Your task to perform on an android device: check the backup settings in the google photos Image 0: 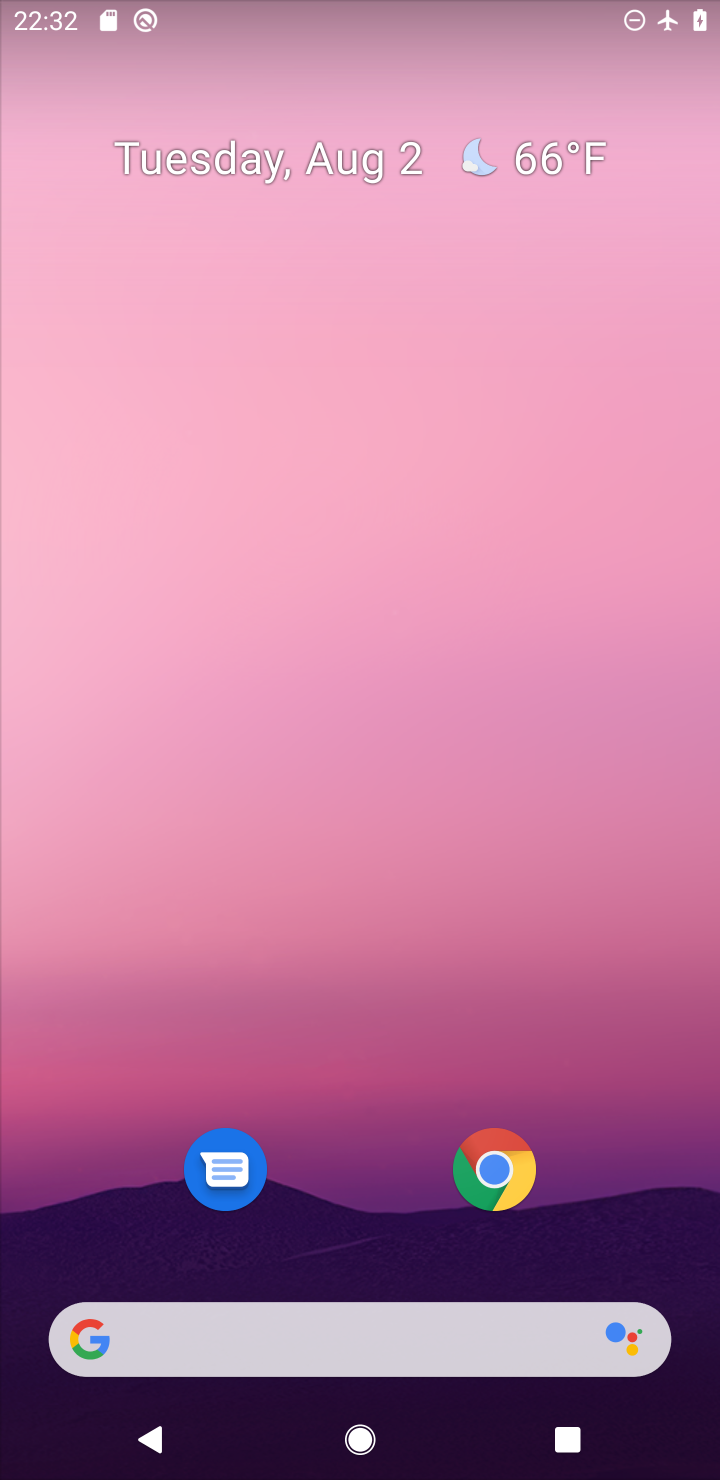
Step 0: drag from (387, 1210) to (387, 300)
Your task to perform on an android device: check the backup settings in the google photos Image 1: 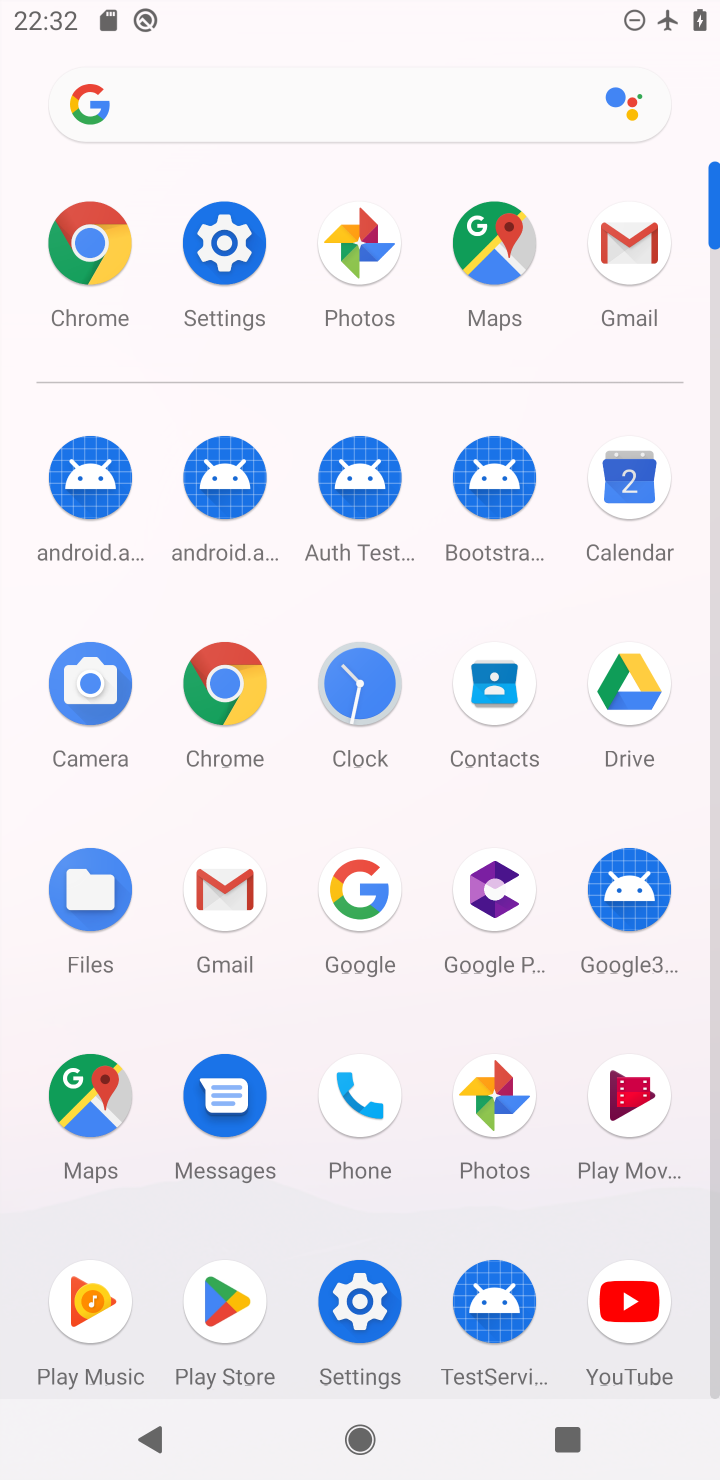
Step 1: click (486, 1093)
Your task to perform on an android device: check the backup settings in the google photos Image 2: 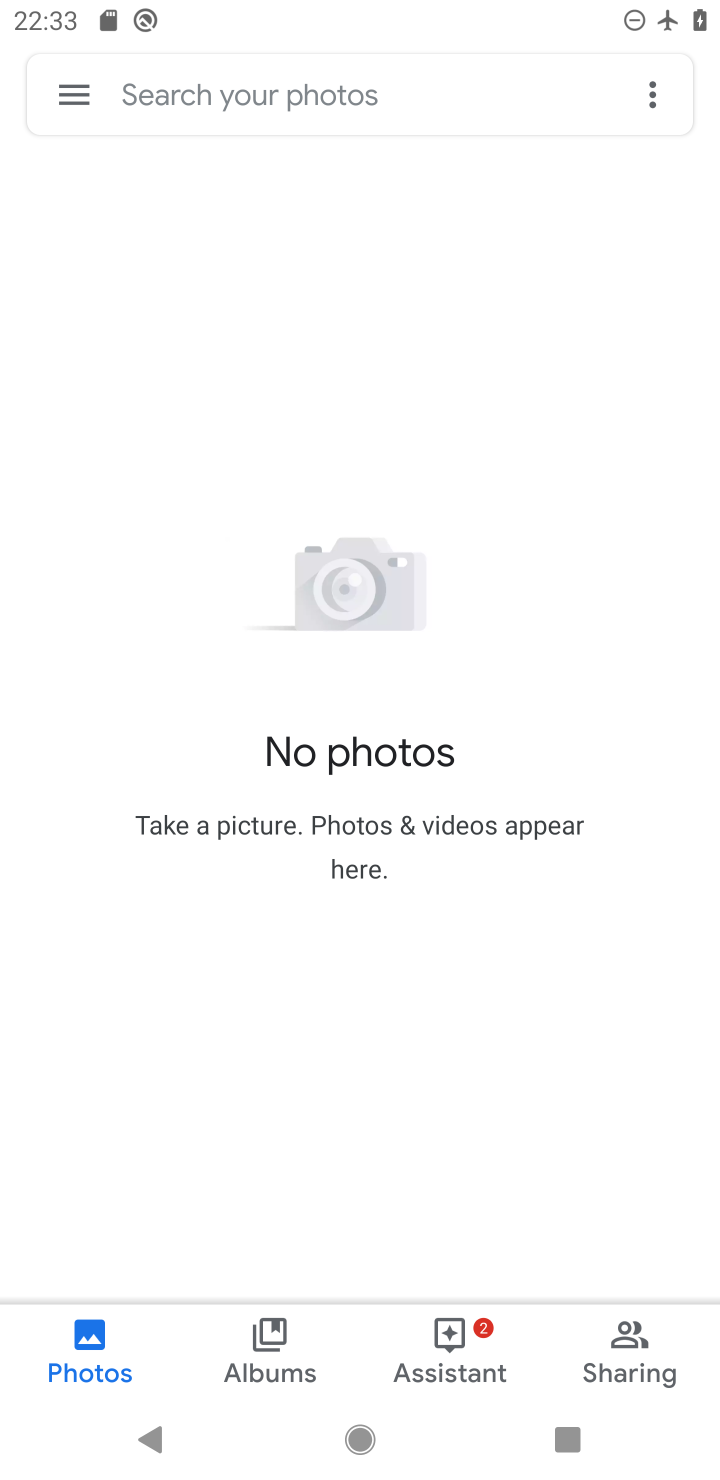
Step 2: click (70, 96)
Your task to perform on an android device: check the backup settings in the google photos Image 3: 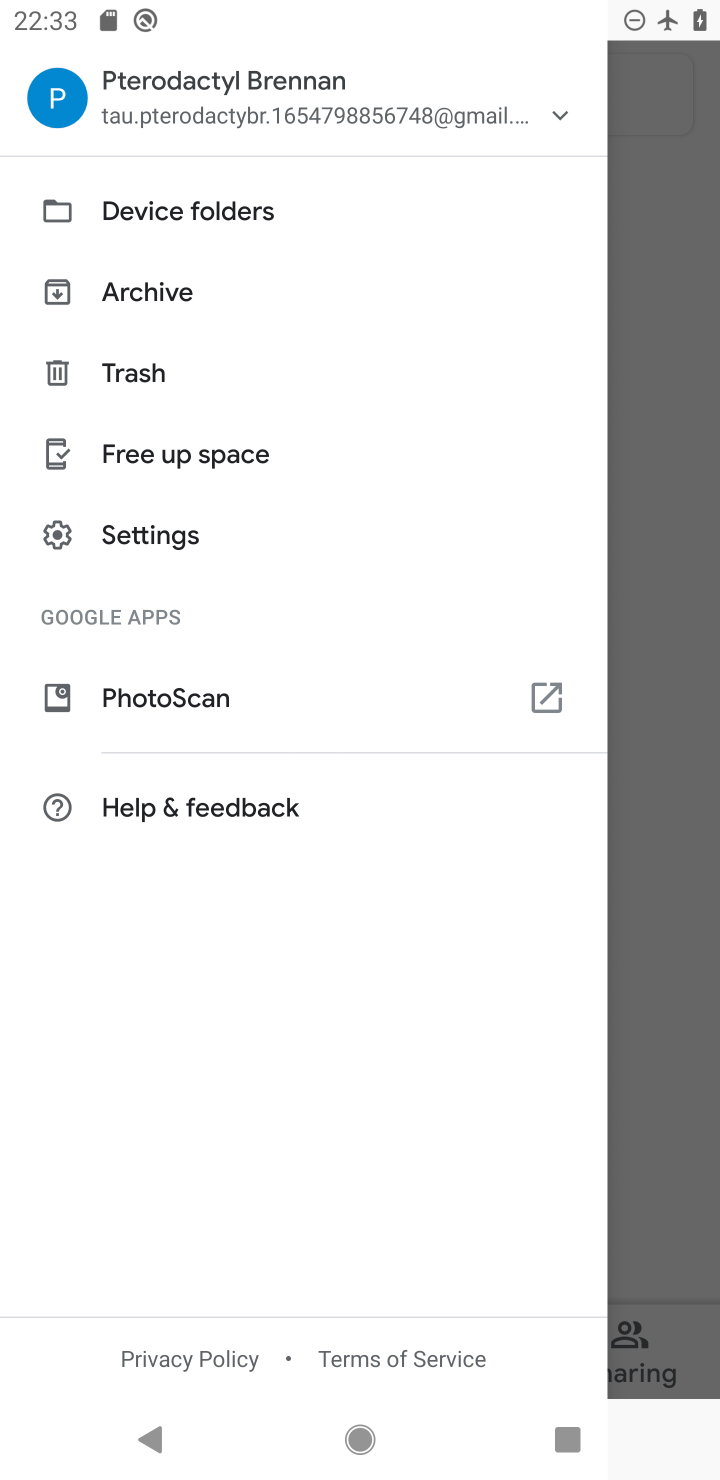
Step 3: click (184, 527)
Your task to perform on an android device: check the backup settings in the google photos Image 4: 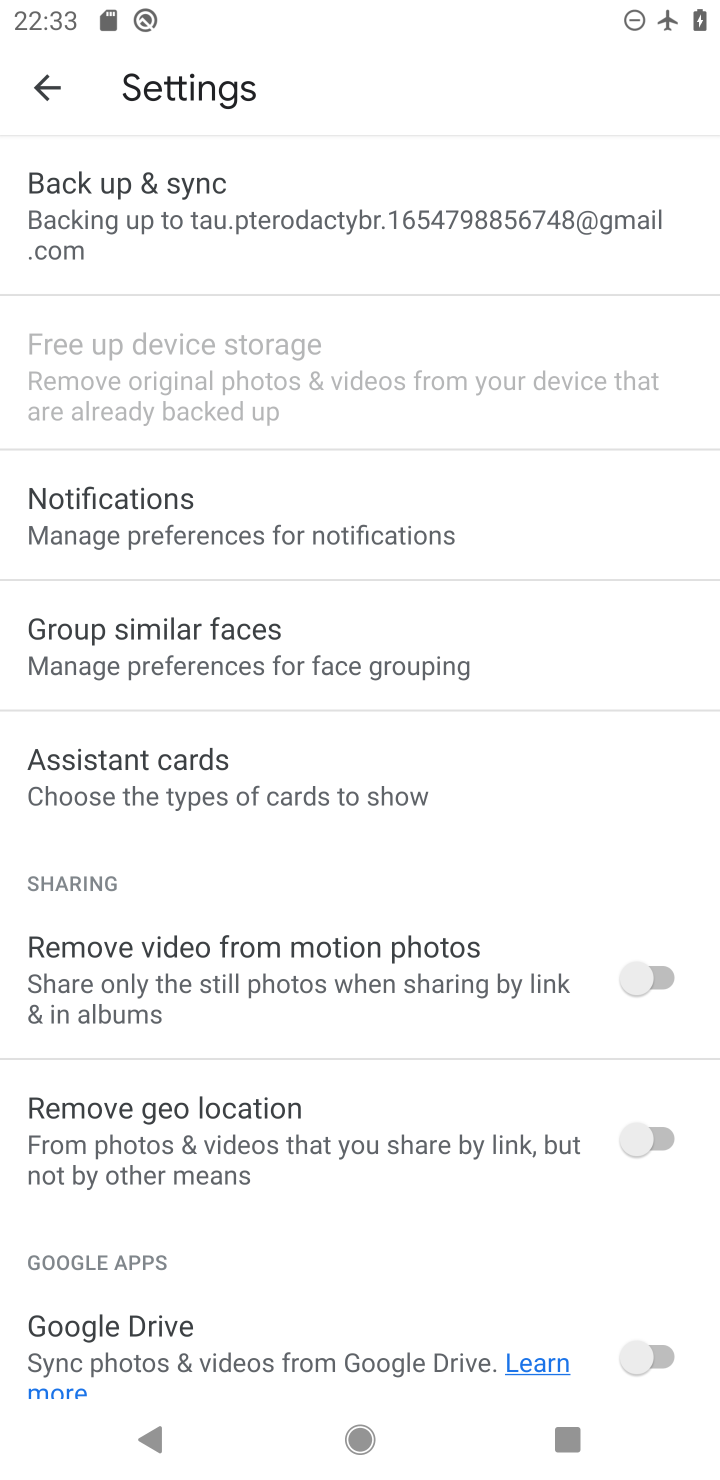
Step 4: click (149, 210)
Your task to perform on an android device: check the backup settings in the google photos Image 5: 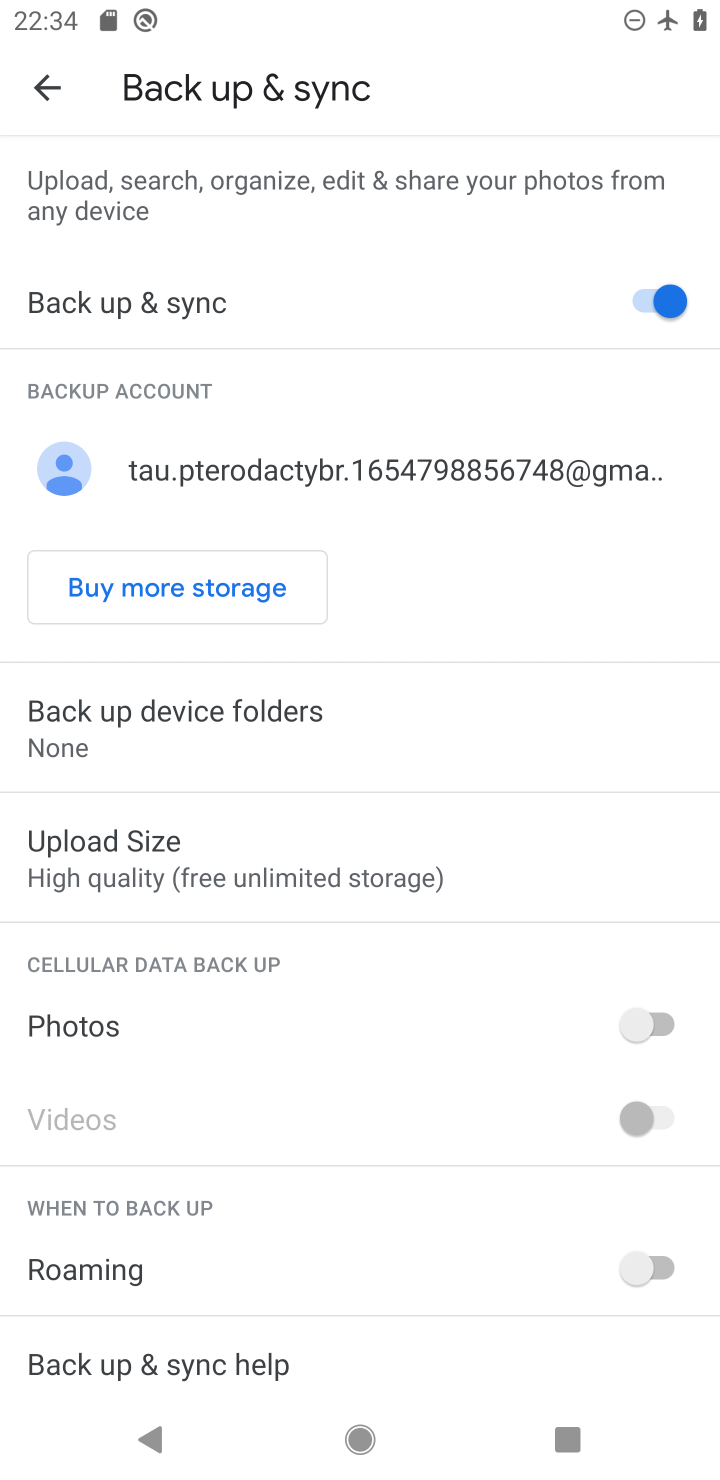
Step 5: task complete